Your task to perform on an android device: open app "File Manager" Image 0: 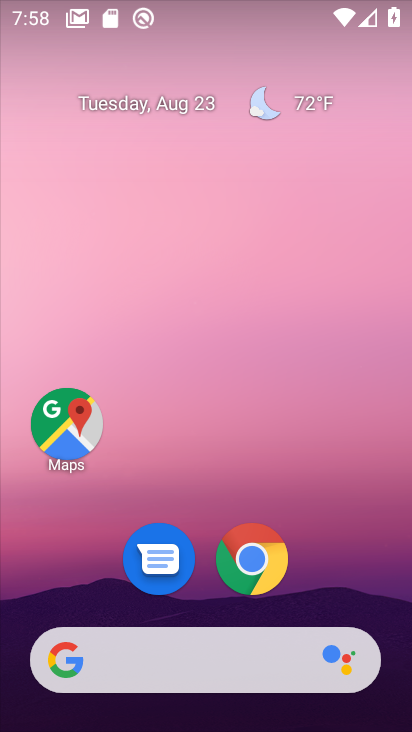
Step 0: drag from (223, 472) to (218, 47)
Your task to perform on an android device: open app "File Manager" Image 1: 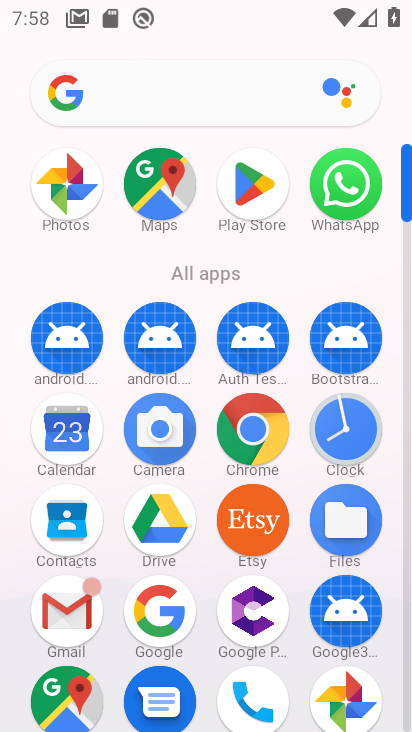
Step 1: click (246, 170)
Your task to perform on an android device: open app "File Manager" Image 2: 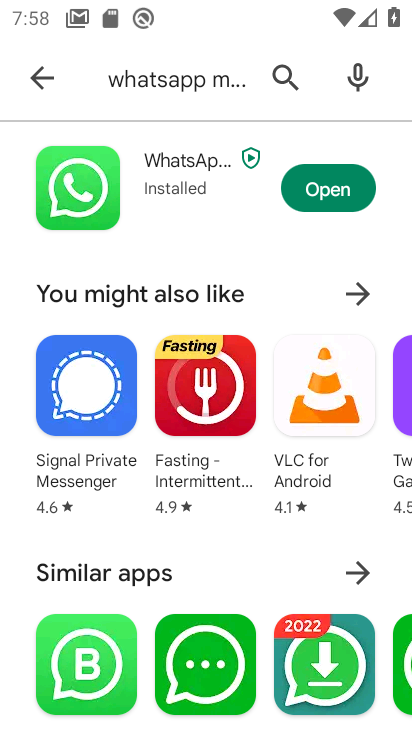
Step 2: click (281, 86)
Your task to perform on an android device: open app "File Manager" Image 3: 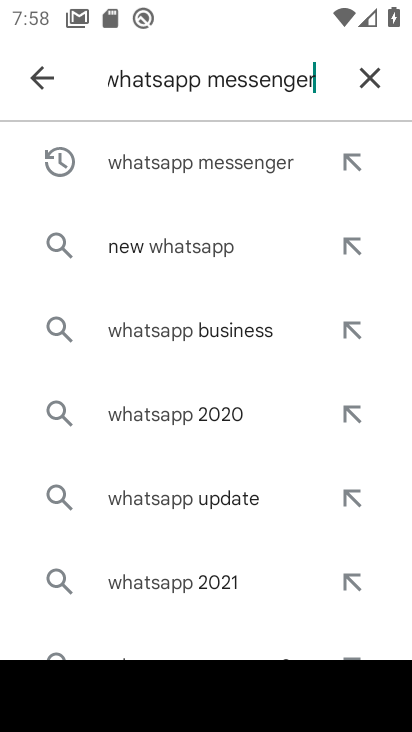
Step 3: click (380, 66)
Your task to perform on an android device: open app "File Manager" Image 4: 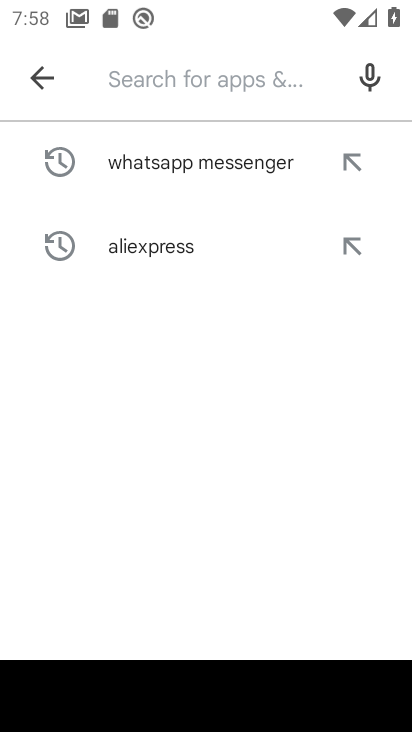
Step 4: type "File Manager"
Your task to perform on an android device: open app "File Manager" Image 5: 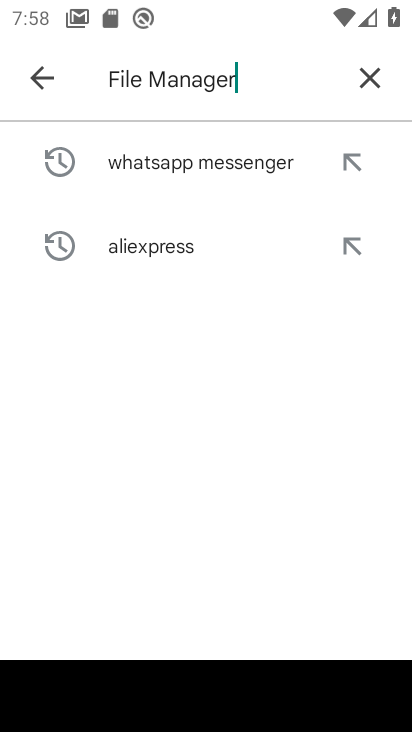
Step 5: type ""
Your task to perform on an android device: open app "File Manager" Image 6: 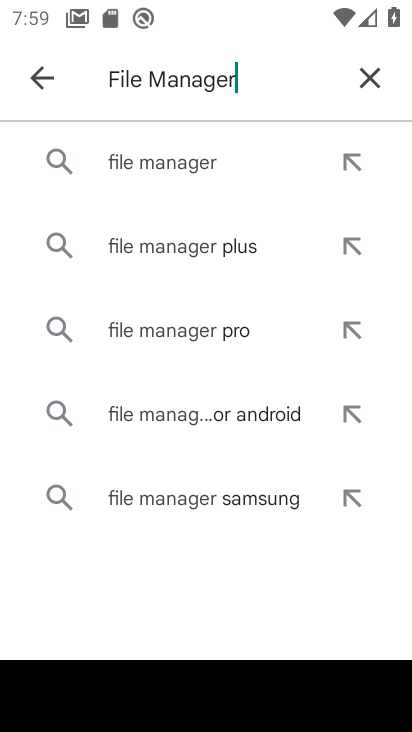
Step 6: click (161, 169)
Your task to perform on an android device: open app "File Manager" Image 7: 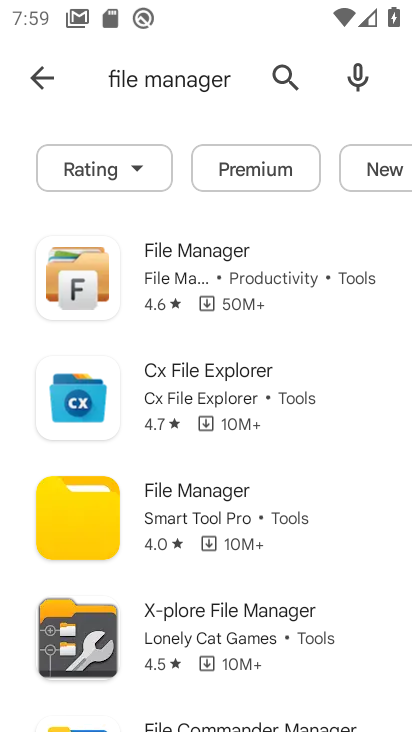
Step 7: click (230, 300)
Your task to perform on an android device: open app "File Manager" Image 8: 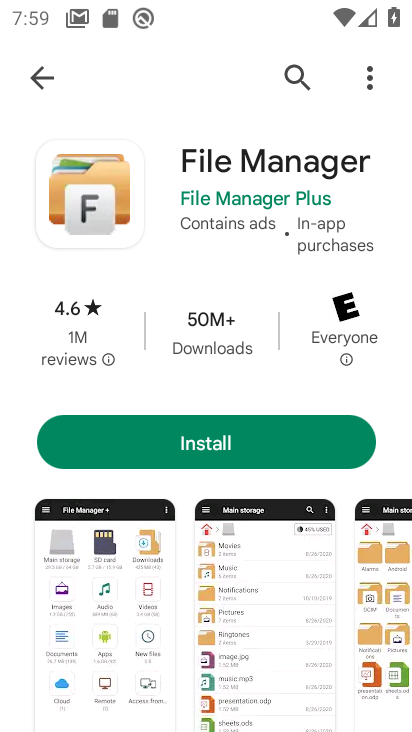
Step 8: task complete